Your task to perform on an android device: Go to display settings Image 0: 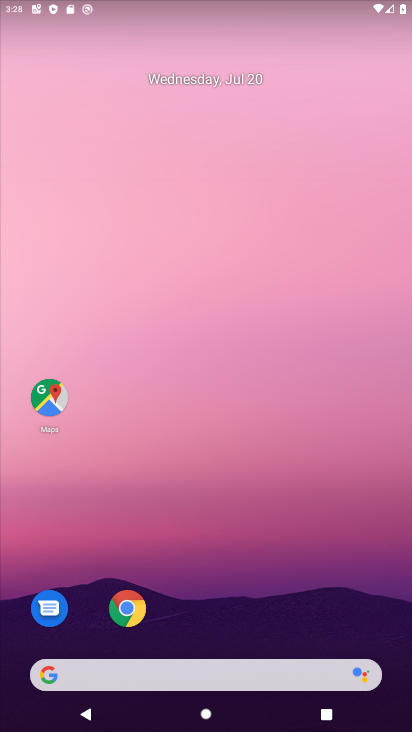
Step 0: drag from (306, 627) to (234, 9)
Your task to perform on an android device: Go to display settings Image 1: 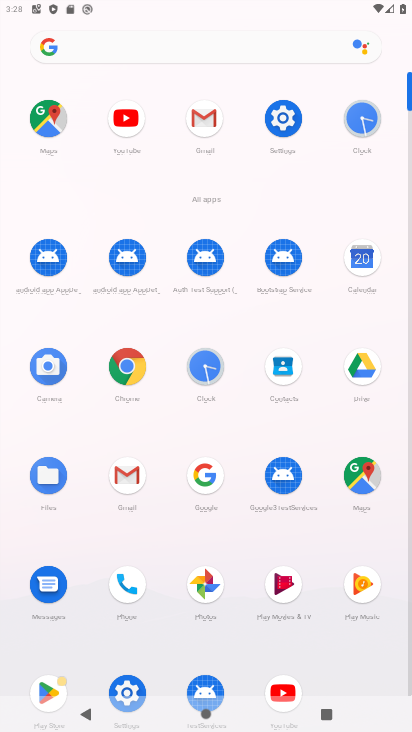
Step 1: click (257, 161)
Your task to perform on an android device: Go to display settings Image 2: 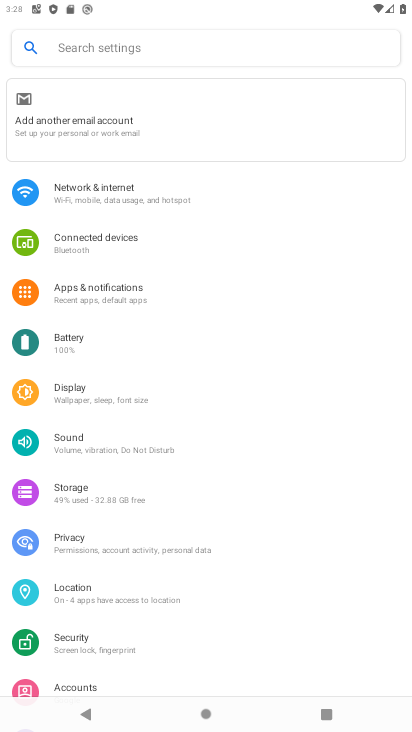
Step 2: click (71, 400)
Your task to perform on an android device: Go to display settings Image 3: 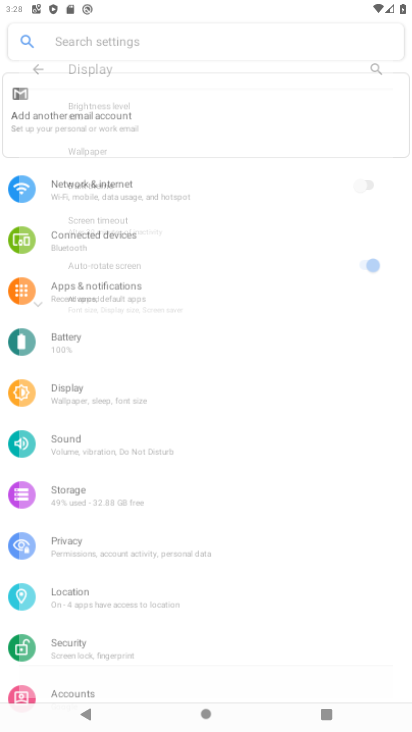
Step 3: task complete